Your task to perform on an android device: Open network settings Image 0: 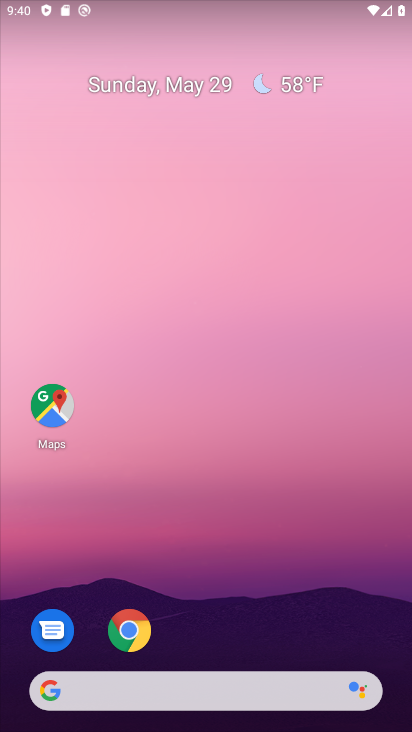
Step 0: drag from (201, 660) to (320, 215)
Your task to perform on an android device: Open network settings Image 1: 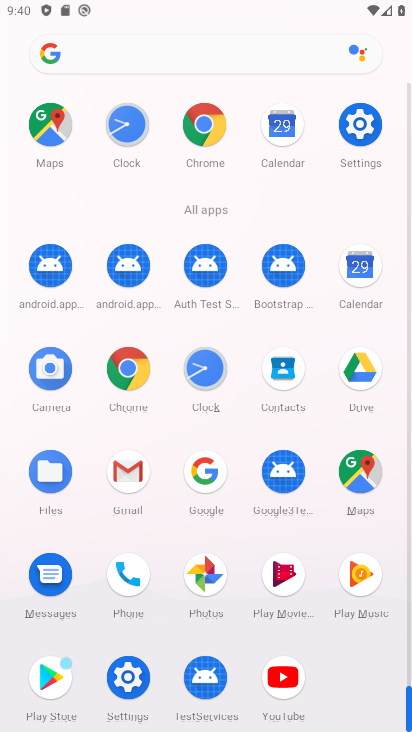
Step 1: click (129, 673)
Your task to perform on an android device: Open network settings Image 2: 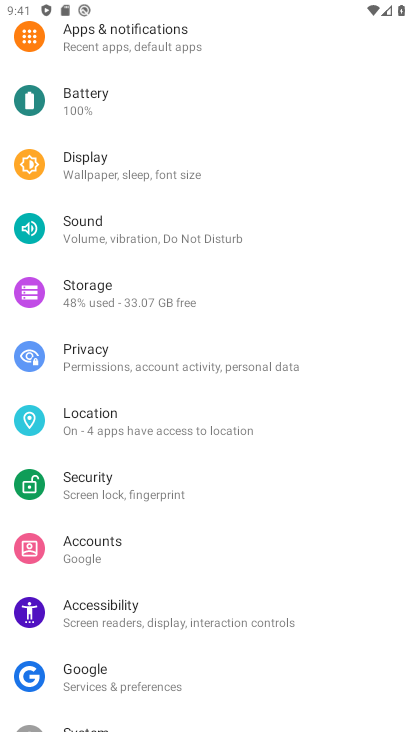
Step 2: drag from (267, 103) to (244, 498)
Your task to perform on an android device: Open network settings Image 3: 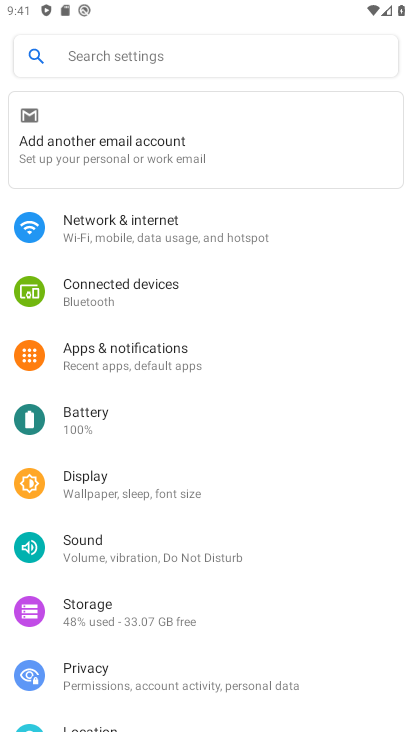
Step 3: click (202, 232)
Your task to perform on an android device: Open network settings Image 4: 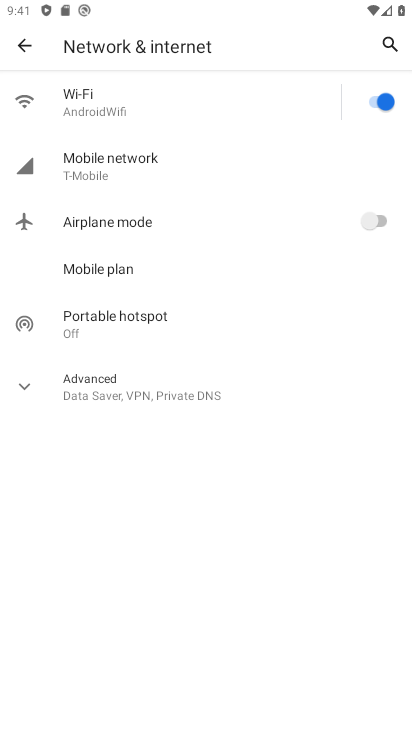
Step 4: click (152, 161)
Your task to perform on an android device: Open network settings Image 5: 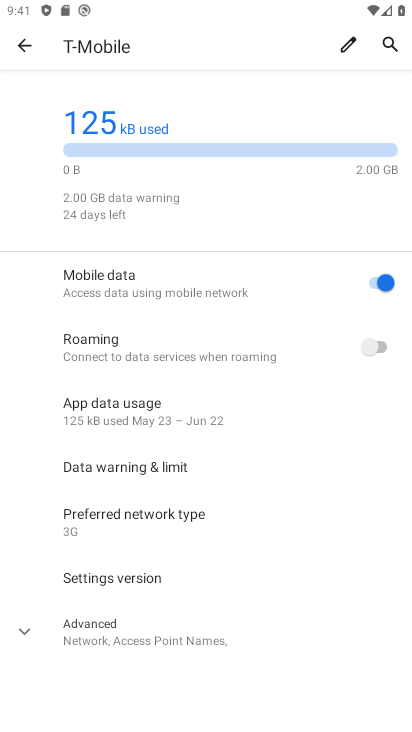
Step 5: task complete